Your task to perform on an android device: Go to wifi settings Image 0: 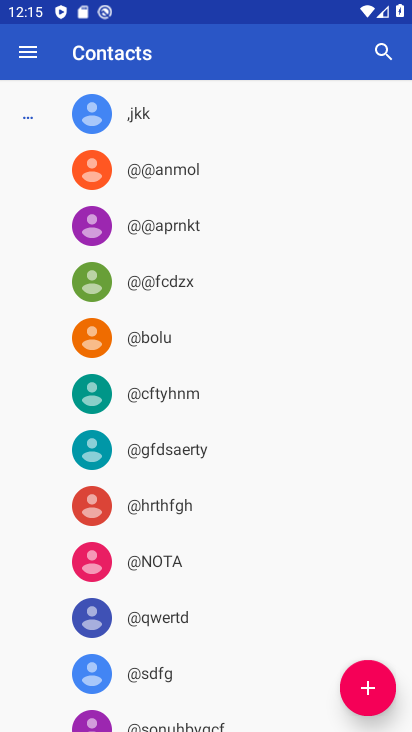
Step 0: press home button
Your task to perform on an android device: Go to wifi settings Image 1: 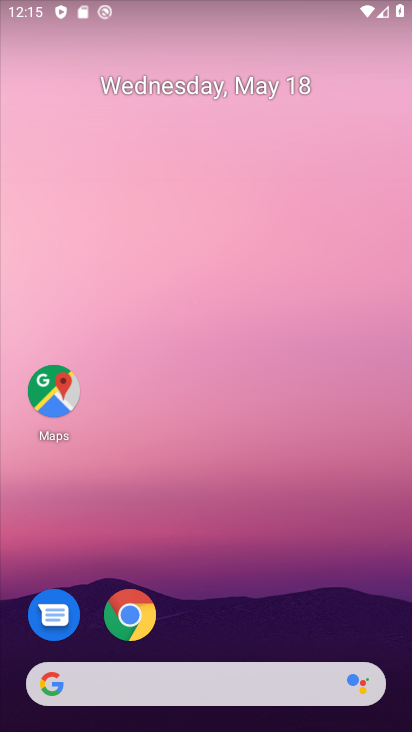
Step 1: drag from (155, 576) to (112, 139)
Your task to perform on an android device: Go to wifi settings Image 2: 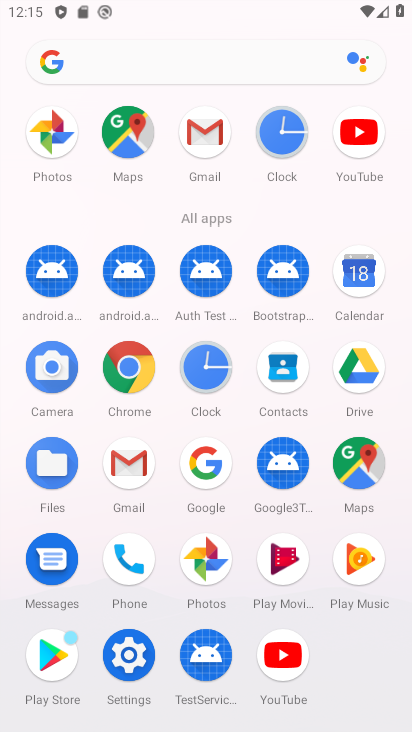
Step 2: click (141, 658)
Your task to perform on an android device: Go to wifi settings Image 3: 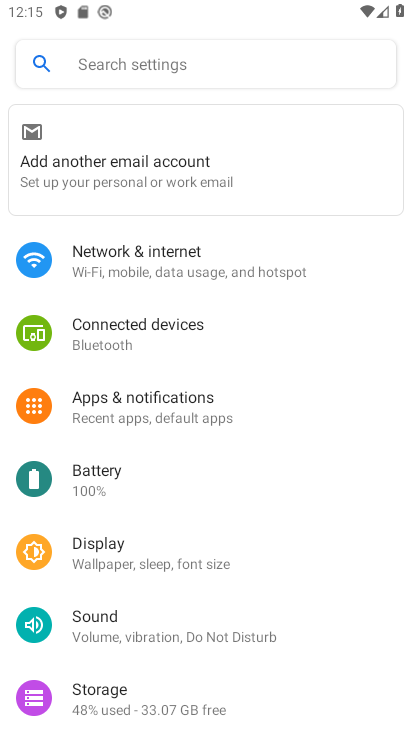
Step 3: click (168, 255)
Your task to perform on an android device: Go to wifi settings Image 4: 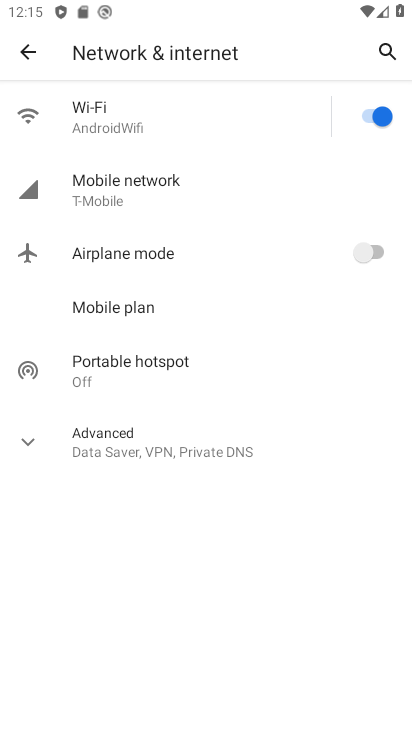
Step 4: click (113, 124)
Your task to perform on an android device: Go to wifi settings Image 5: 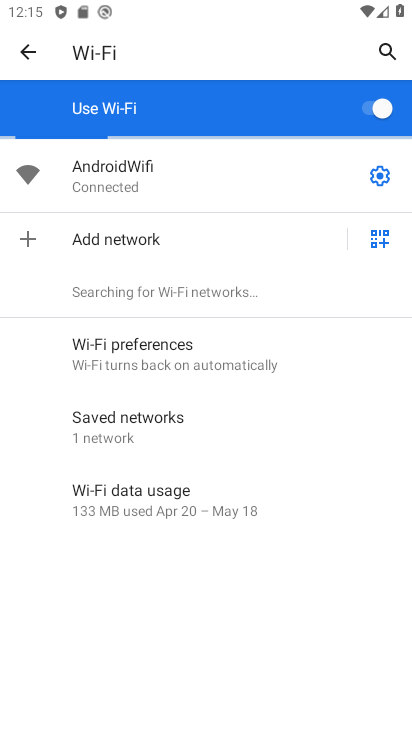
Step 5: task complete